Your task to perform on an android device: Open Android settings Image 0: 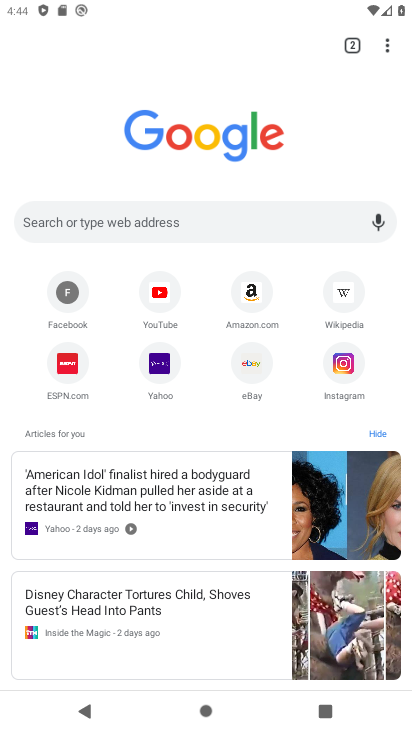
Step 0: press home button
Your task to perform on an android device: Open Android settings Image 1: 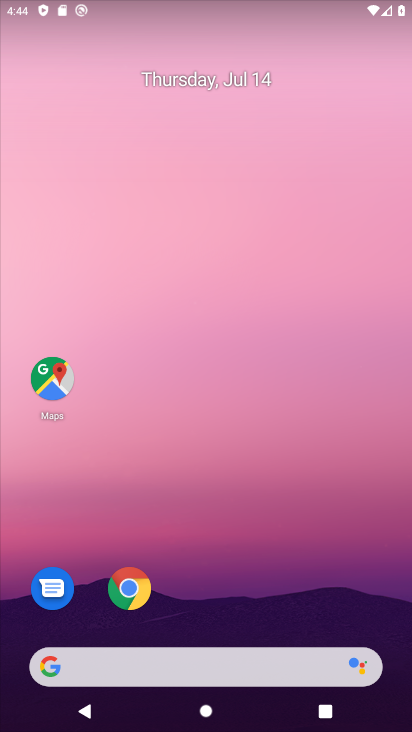
Step 1: drag from (207, 656) to (194, 428)
Your task to perform on an android device: Open Android settings Image 2: 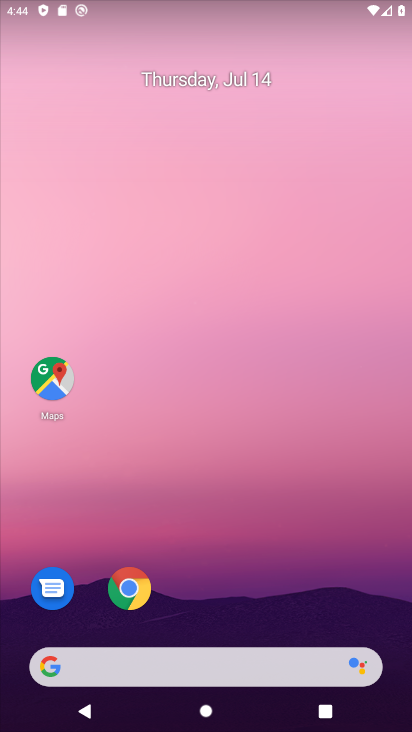
Step 2: drag from (192, 644) to (228, 248)
Your task to perform on an android device: Open Android settings Image 3: 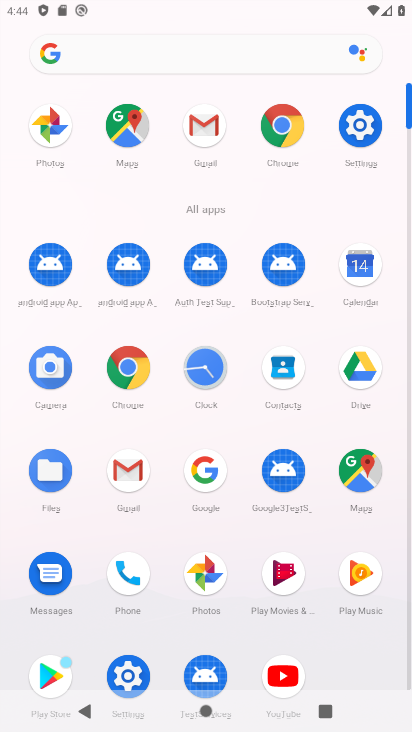
Step 3: click (344, 122)
Your task to perform on an android device: Open Android settings Image 4: 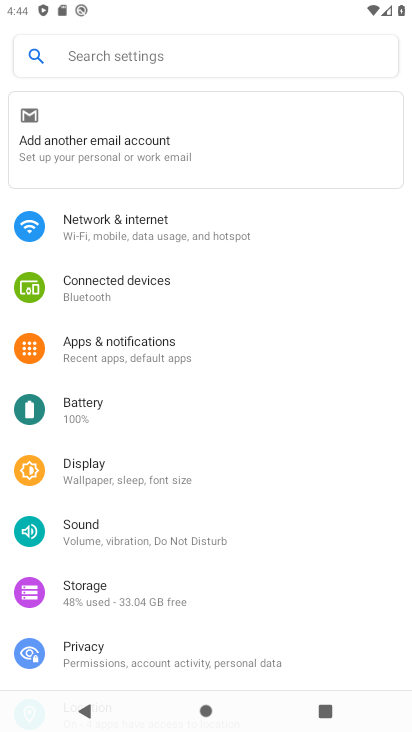
Step 4: task complete